Your task to perform on an android device: install app "Upside-Cash back on gas & food" Image 0: 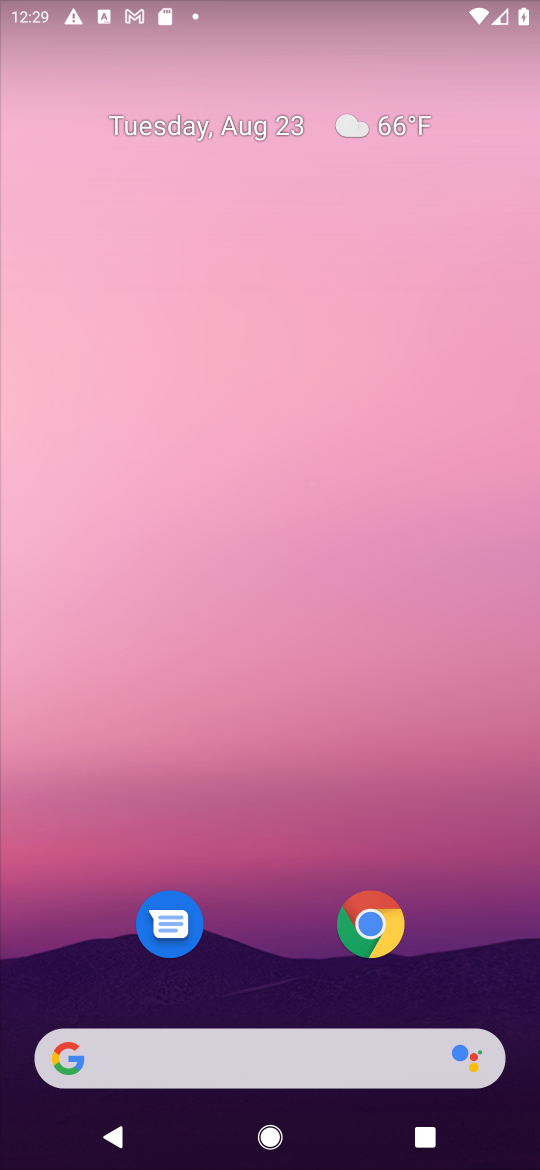
Step 0: press home button
Your task to perform on an android device: install app "Upside-Cash back on gas & food" Image 1: 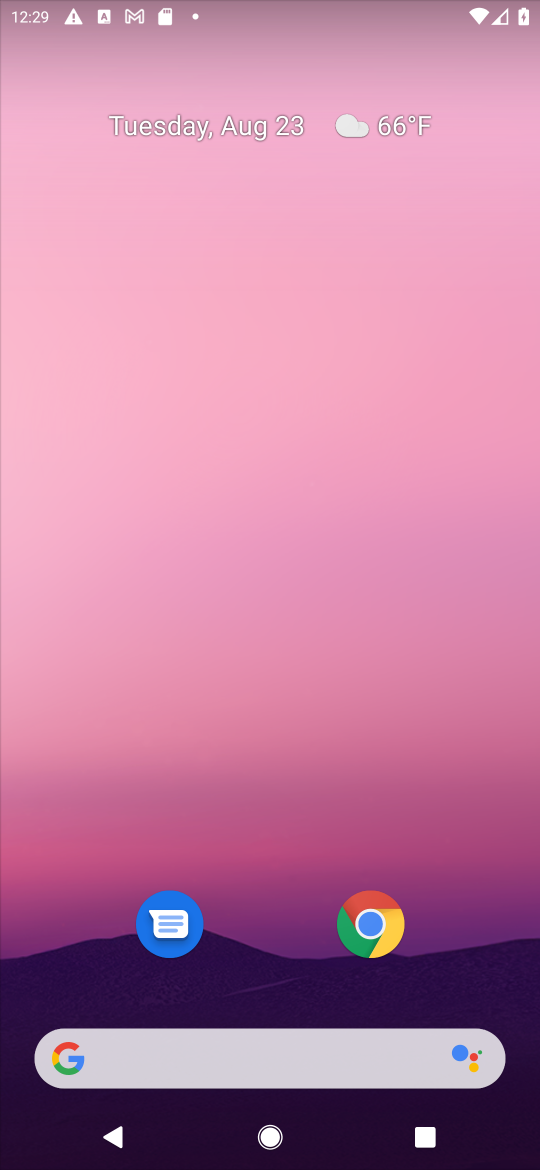
Step 1: drag from (460, 930) to (473, 122)
Your task to perform on an android device: install app "Upside-Cash back on gas & food" Image 2: 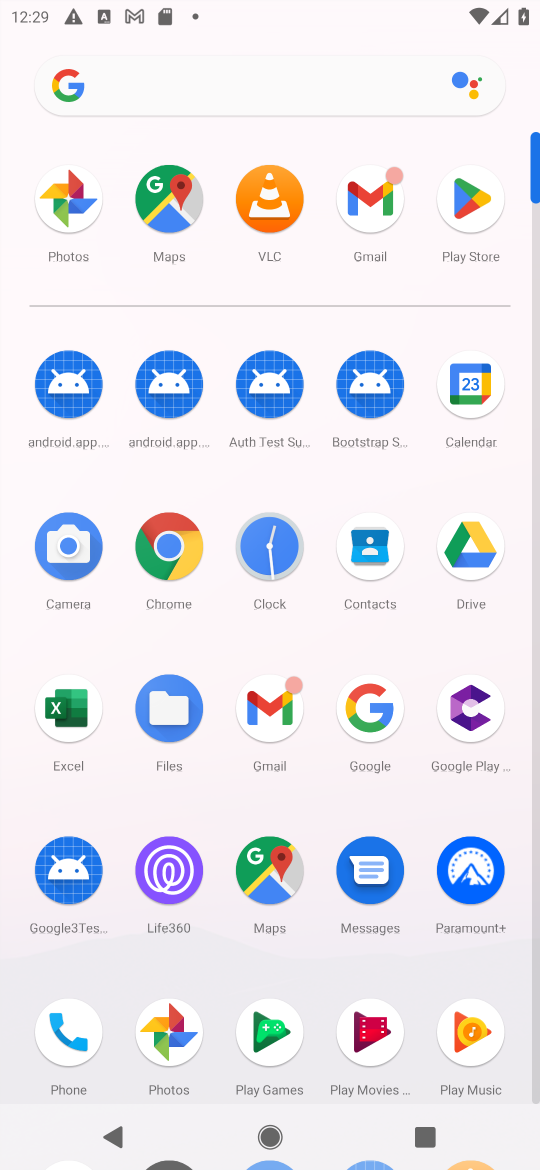
Step 2: click (474, 190)
Your task to perform on an android device: install app "Upside-Cash back on gas & food" Image 3: 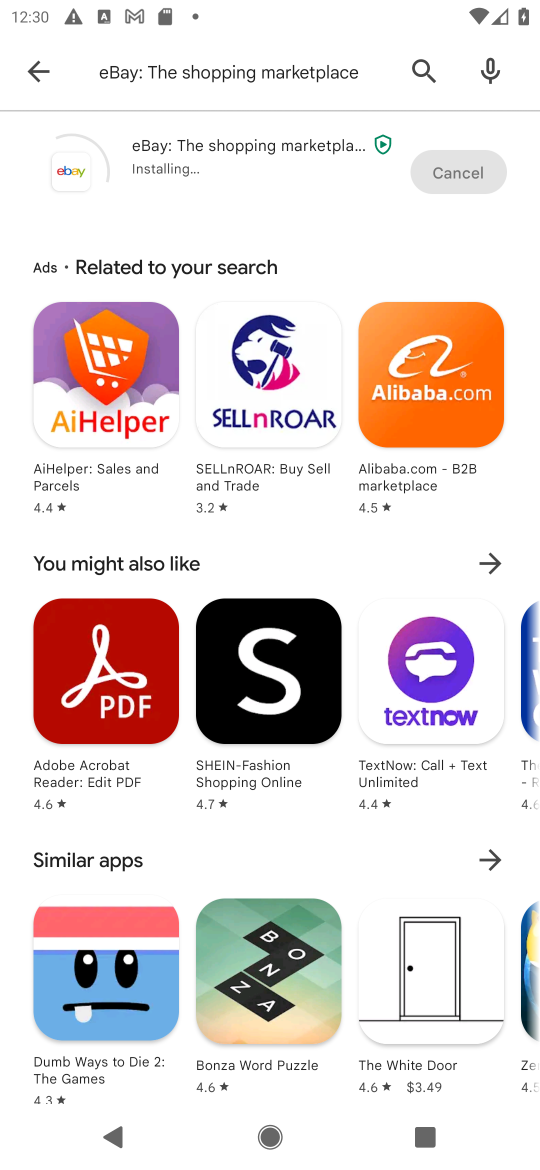
Step 3: press back button
Your task to perform on an android device: install app "Upside-Cash back on gas & food" Image 4: 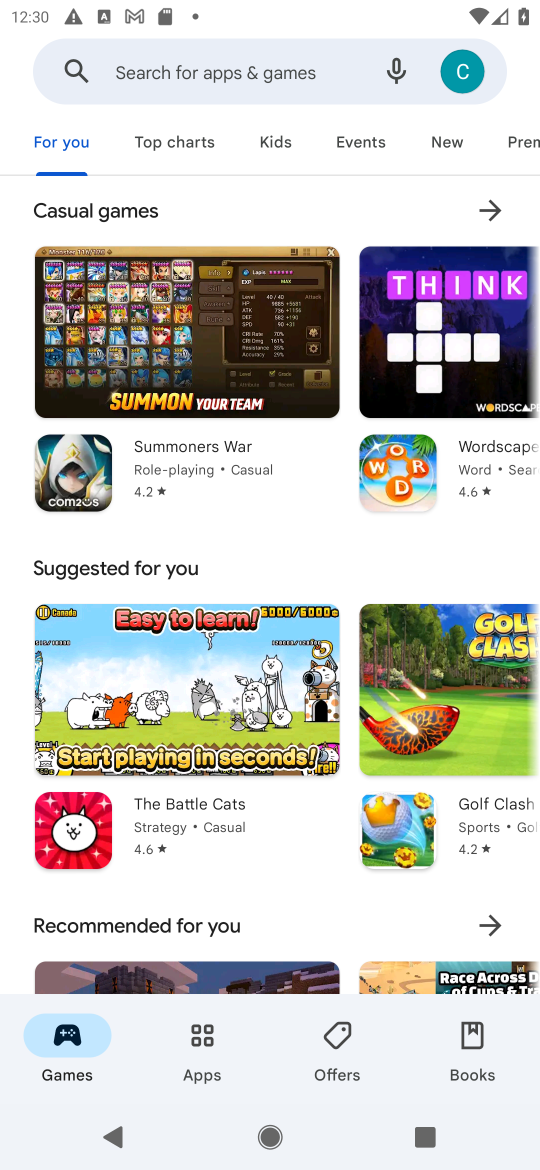
Step 4: click (241, 63)
Your task to perform on an android device: install app "Upside-Cash back on gas & food" Image 5: 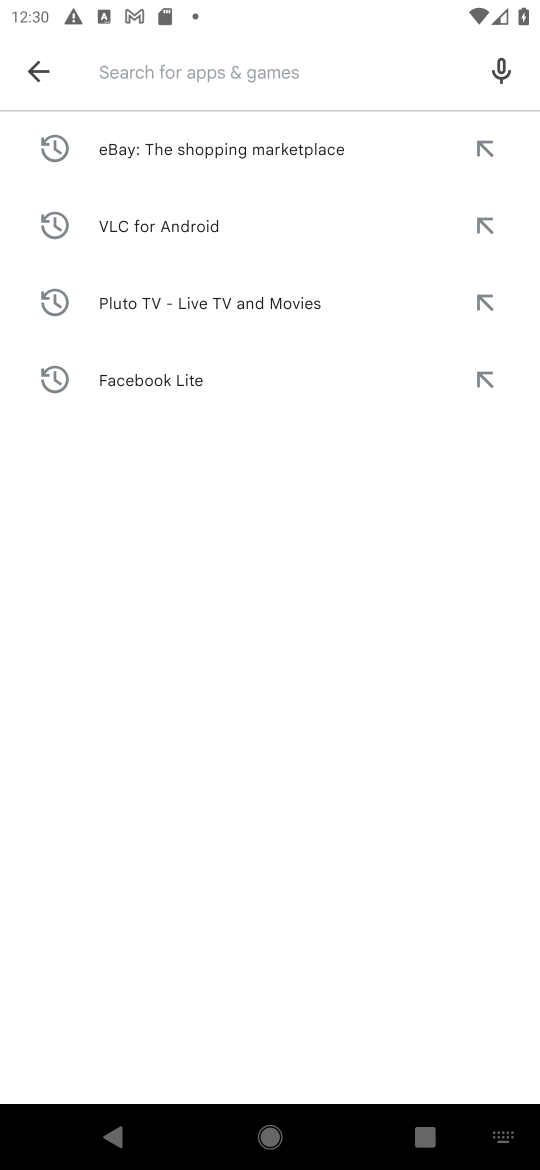
Step 5: type "Upside-Cash back on gas & food"
Your task to perform on an android device: install app "Upside-Cash back on gas & food" Image 6: 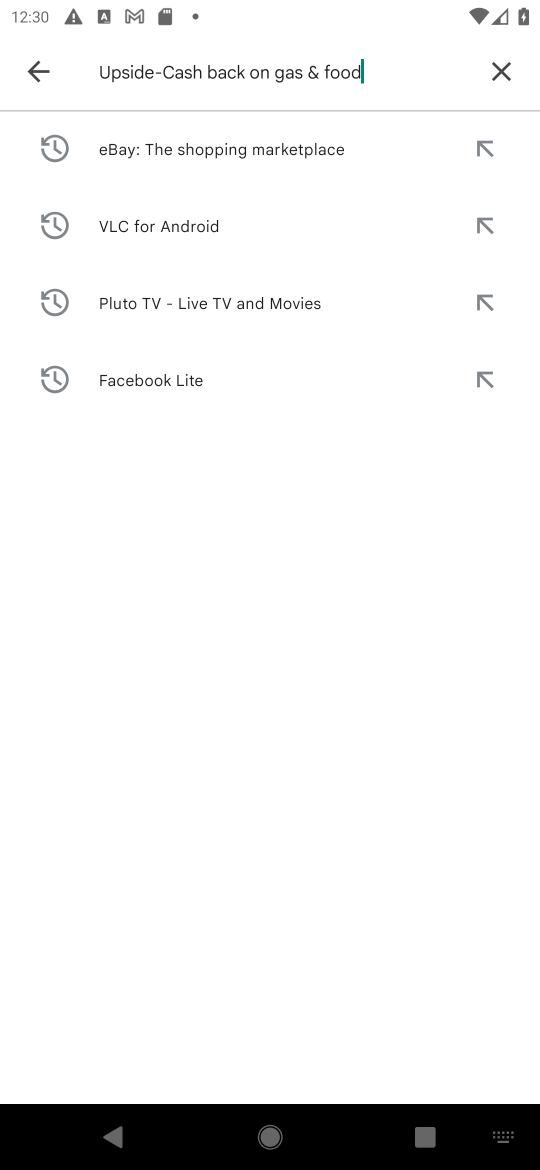
Step 6: press enter
Your task to perform on an android device: install app "Upside-Cash back on gas & food" Image 7: 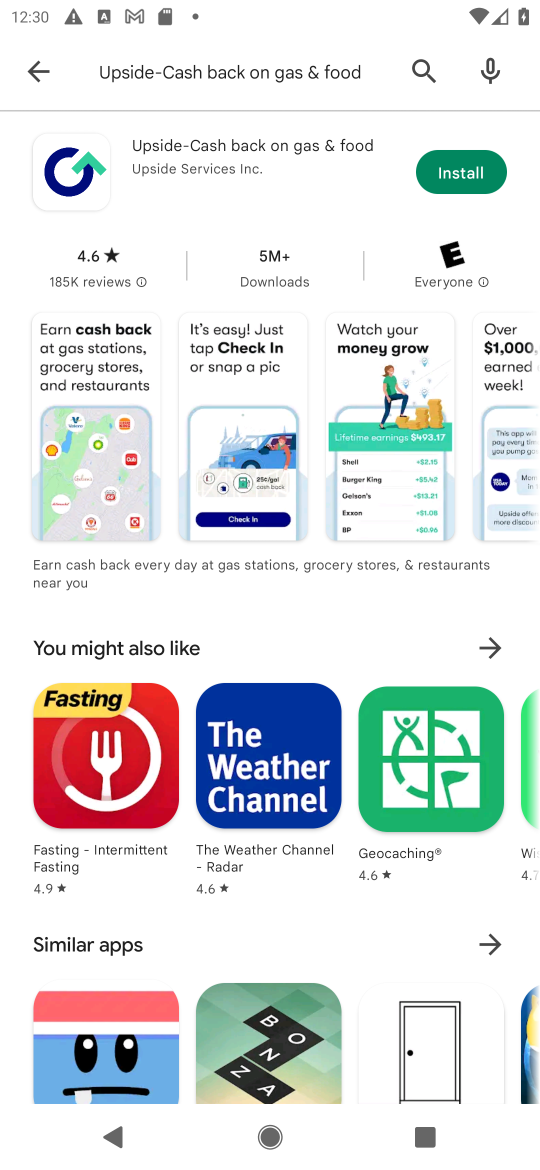
Step 7: click (465, 169)
Your task to perform on an android device: install app "Upside-Cash back on gas & food" Image 8: 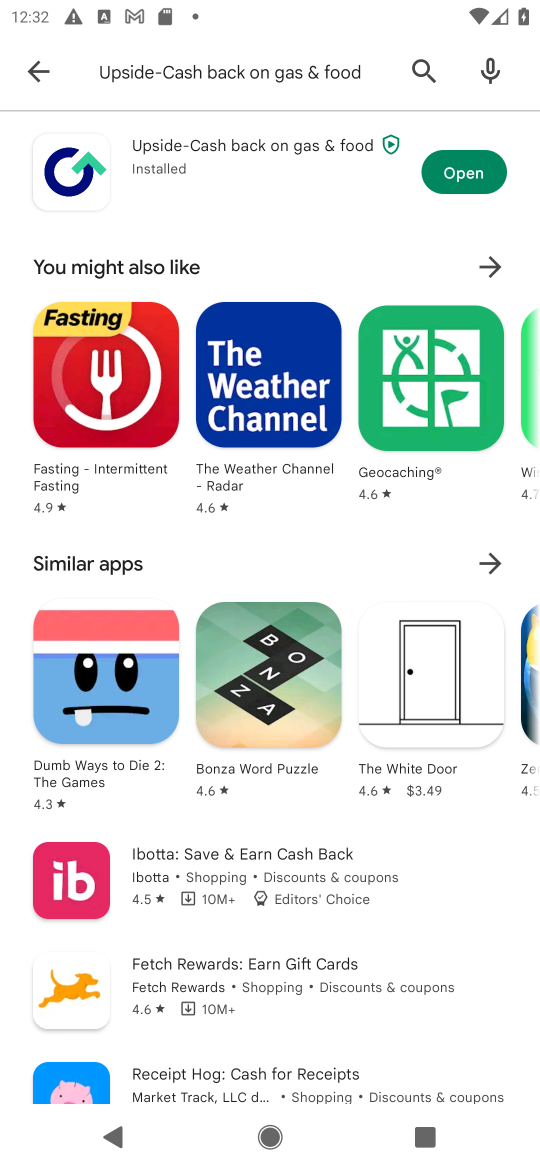
Step 8: task complete